Your task to perform on an android device: Open the stopwatch Image 0: 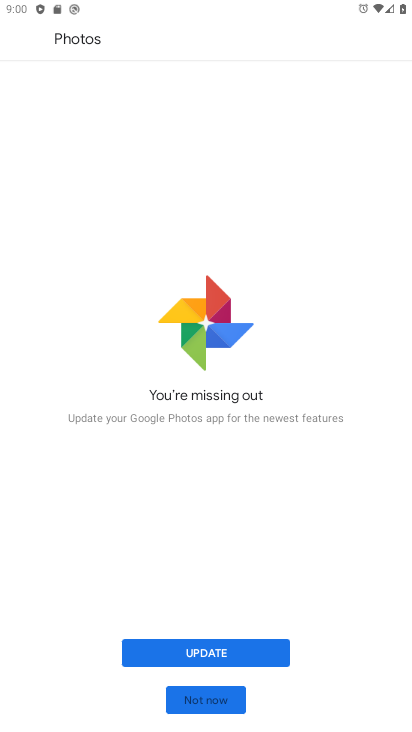
Step 0: press home button
Your task to perform on an android device: Open the stopwatch Image 1: 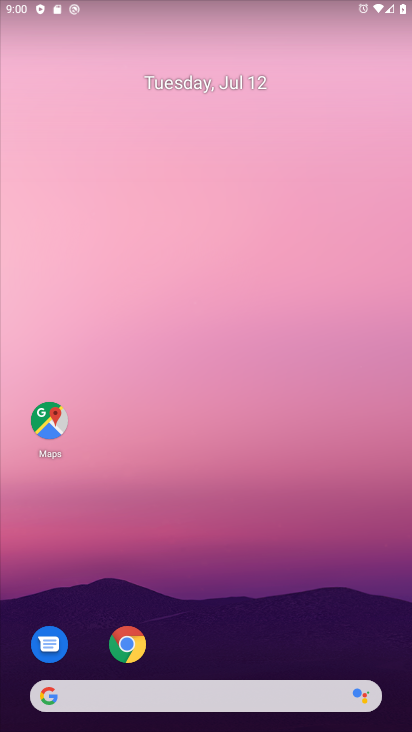
Step 1: drag from (23, 711) to (199, 141)
Your task to perform on an android device: Open the stopwatch Image 2: 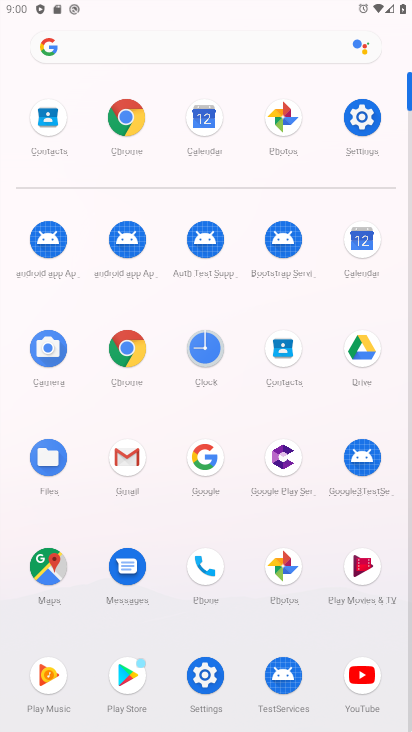
Step 2: click (198, 353)
Your task to perform on an android device: Open the stopwatch Image 3: 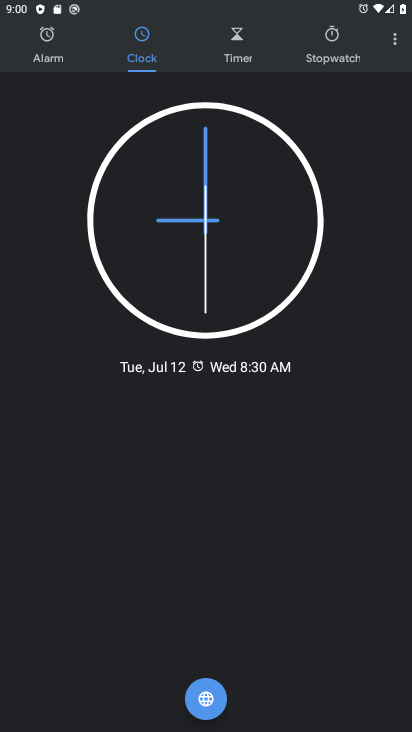
Step 3: click (319, 58)
Your task to perform on an android device: Open the stopwatch Image 4: 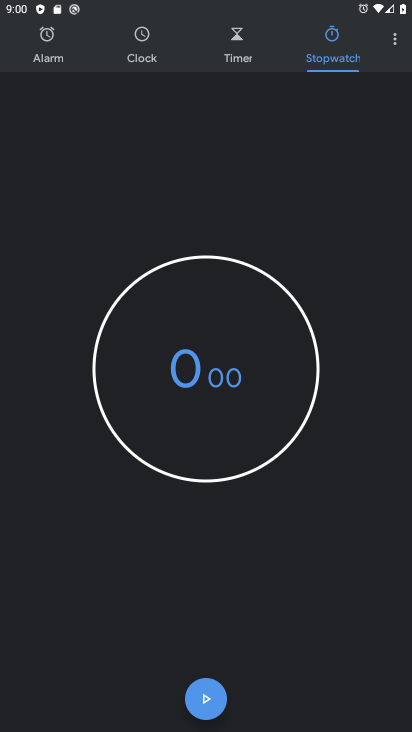
Step 4: click (194, 701)
Your task to perform on an android device: Open the stopwatch Image 5: 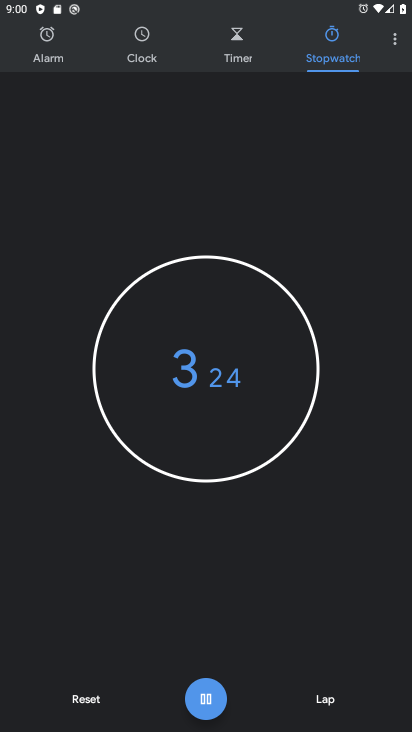
Step 5: click (206, 696)
Your task to perform on an android device: Open the stopwatch Image 6: 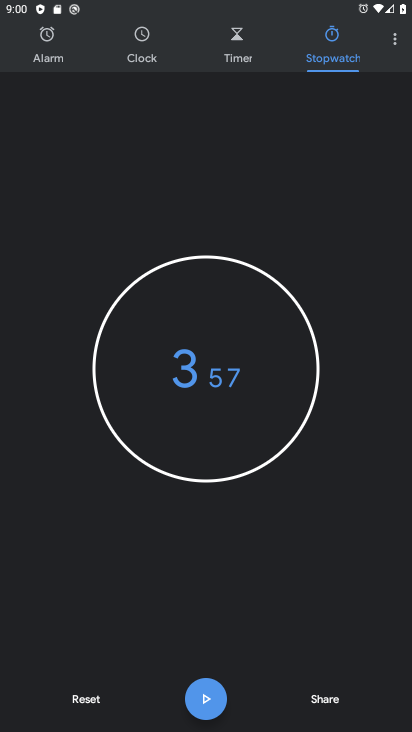
Step 6: task complete